Your task to perform on an android device: open app "NewsBreak: Local News & Alerts" Image 0: 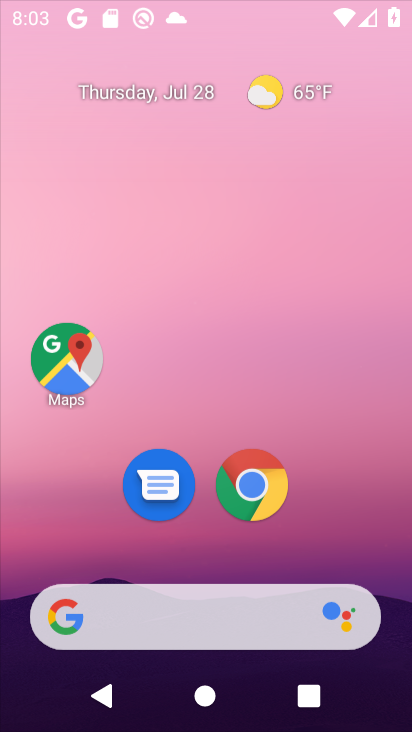
Step 0: click (230, 163)
Your task to perform on an android device: open app "NewsBreak: Local News & Alerts" Image 1: 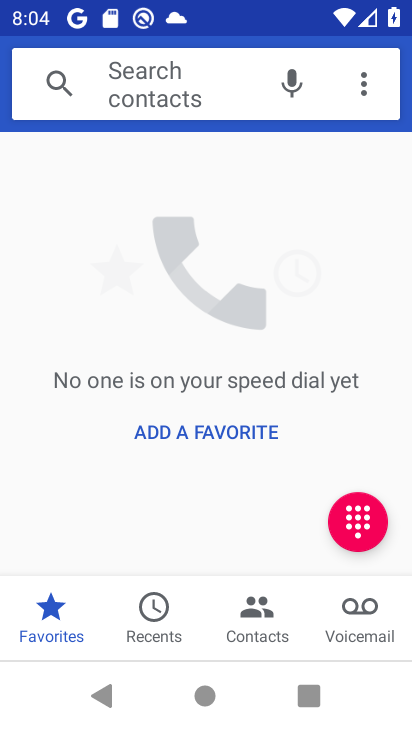
Step 1: press back button
Your task to perform on an android device: open app "NewsBreak: Local News & Alerts" Image 2: 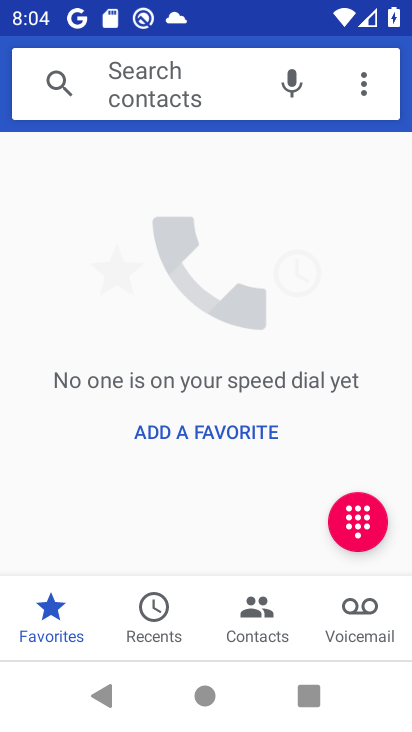
Step 2: press back button
Your task to perform on an android device: open app "NewsBreak: Local News & Alerts" Image 3: 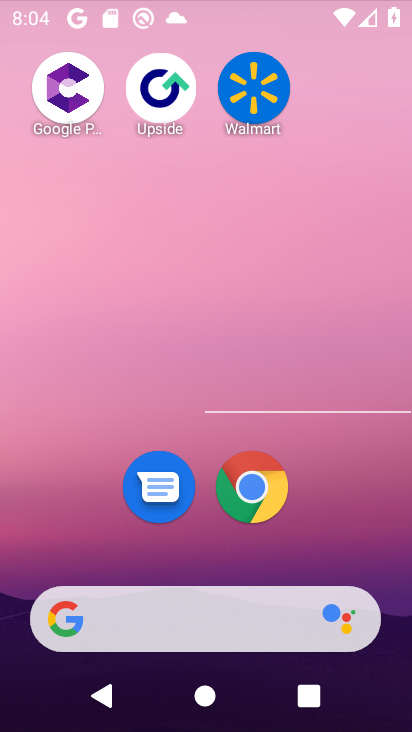
Step 3: press back button
Your task to perform on an android device: open app "NewsBreak: Local News & Alerts" Image 4: 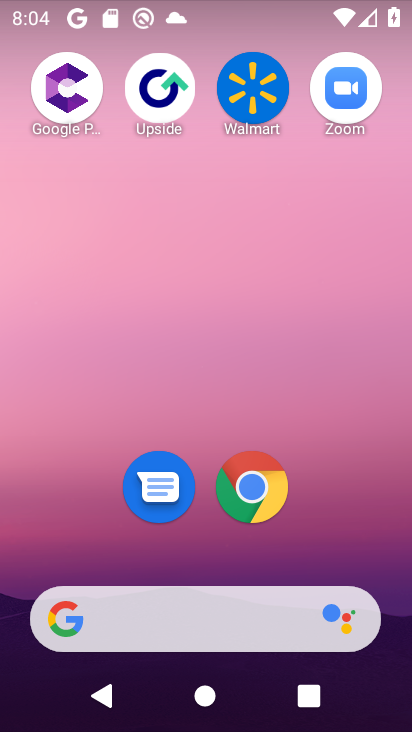
Step 4: press back button
Your task to perform on an android device: open app "NewsBreak: Local News & Alerts" Image 5: 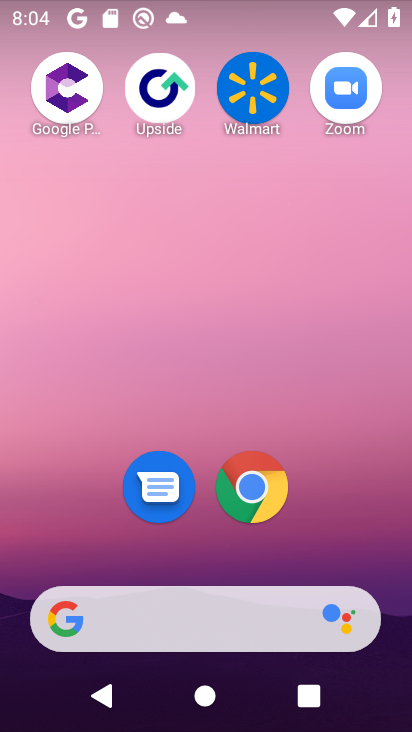
Step 5: drag from (249, 682) to (175, 140)
Your task to perform on an android device: open app "NewsBreak: Local News & Alerts" Image 6: 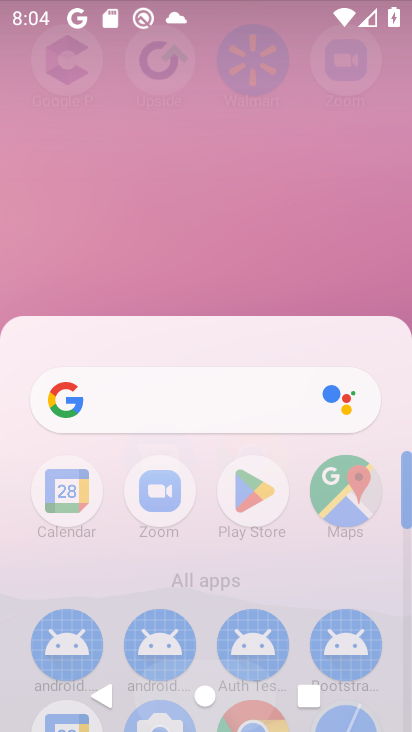
Step 6: drag from (299, 605) to (274, 80)
Your task to perform on an android device: open app "NewsBreak: Local News & Alerts" Image 7: 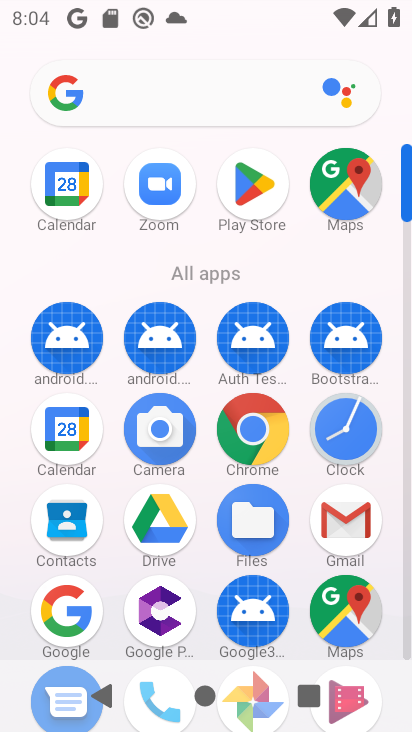
Step 7: drag from (273, 486) to (250, 32)
Your task to perform on an android device: open app "NewsBreak: Local News & Alerts" Image 8: 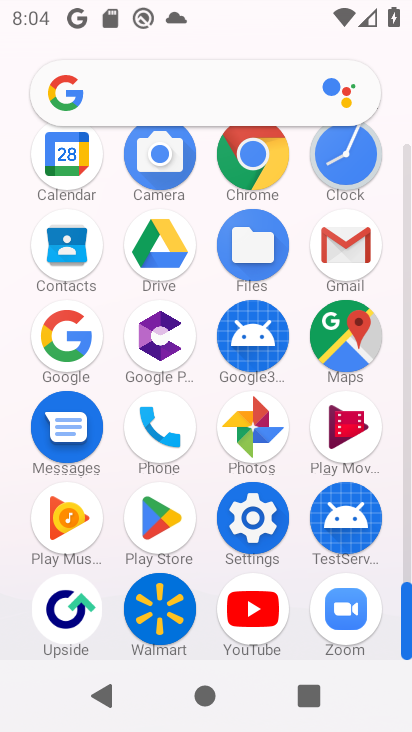
Step 8: drag from (193, 189) to (213, 545)
Your task to perform on an android device: open app "NewsBreak: Local News & Alerts" Image 9: 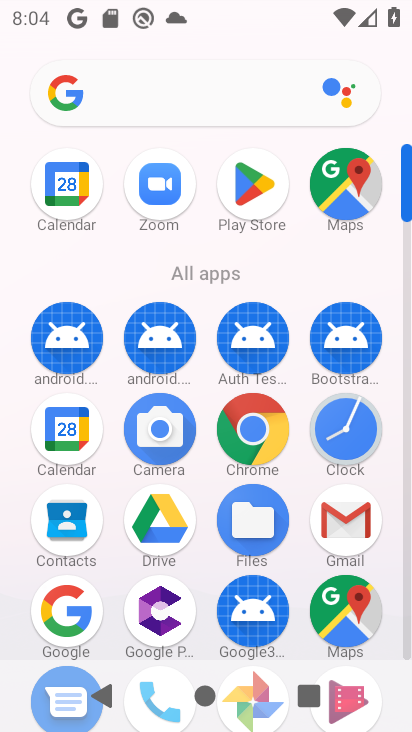
Step 9: drag from (170, 334) to (216, 656)
Your task to perform on an android device: open app "NewsBreak: Local News & Alerts" Image 10: 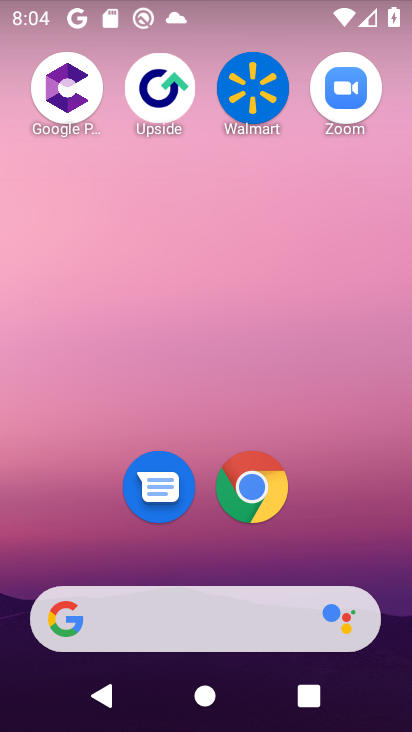
Step 10: drag from (226, 678) to (219, 147)
Your task to perform on an android device: open app "NewsBreak: Local News & Alerts" Image 11: 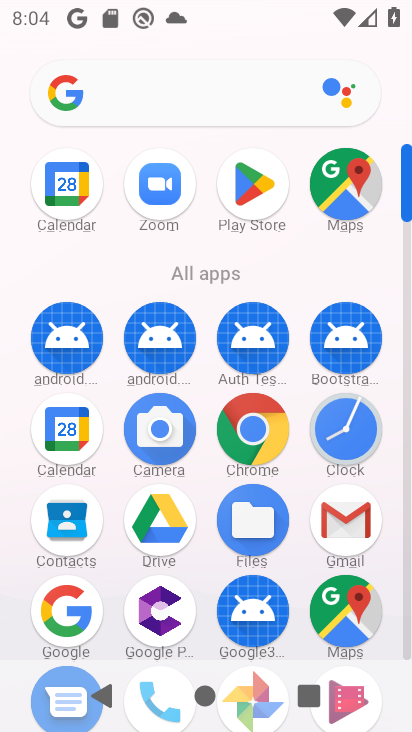
Step 11: click (250, 189)
Your task to perform on an android device: open app "NewsBreak: Local News & Alerts" Image 12: 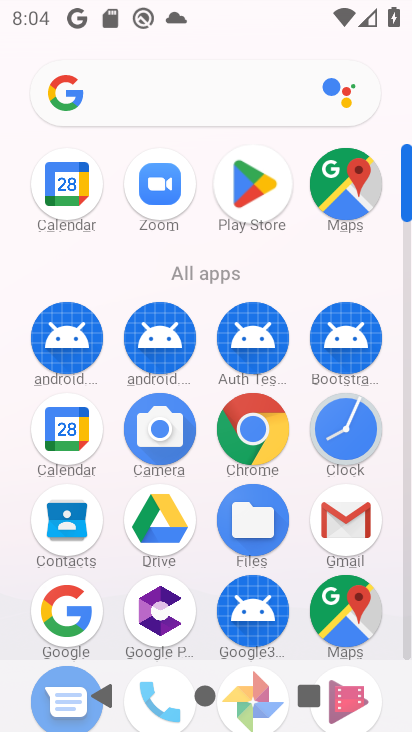
Step 12: click (248, 191)
Your task to perform on an android device: open app "NewsBreak: Local News & Alerts" Image 13: 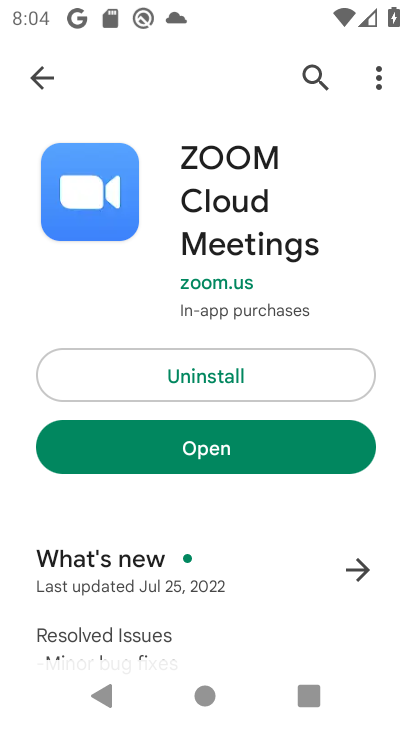
Step 13: click (32, 68)
Your task to perform on an android device: open app "NewsBreak: Local News & Alerts" Image 14: 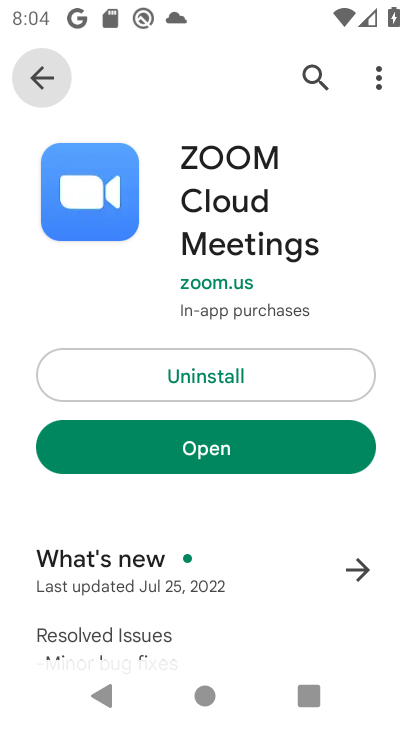
Step 14: click (37, 71)
Your task to perform on an android device: open app "NewsBreak: Local News & Alerts" Image 15: 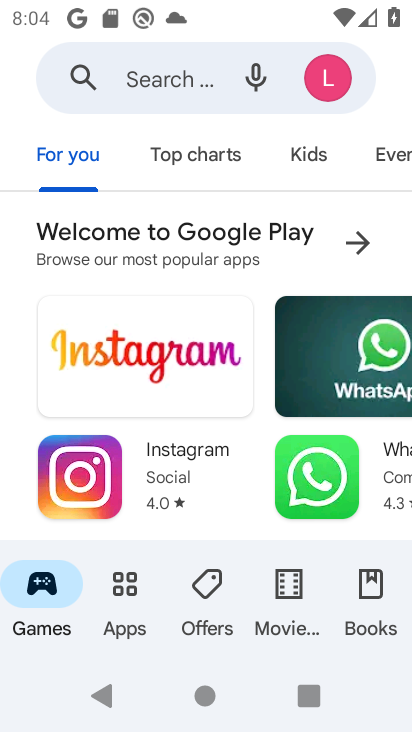
Step 15: click (141, 77)
Your task to perform on an android device: open app "NewsBreak: Local News & Alerts" Image 16: 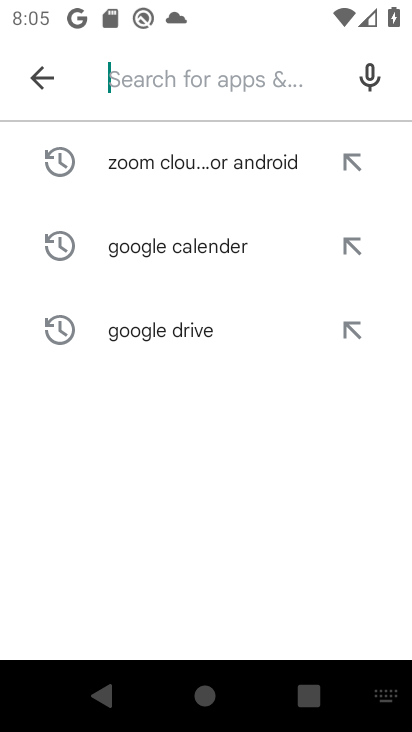
Step 16: type "News break : Local News & Alerts"
Your task to perform on an android device: open app "NewsBreak: Local News & Alerts" Image 17: 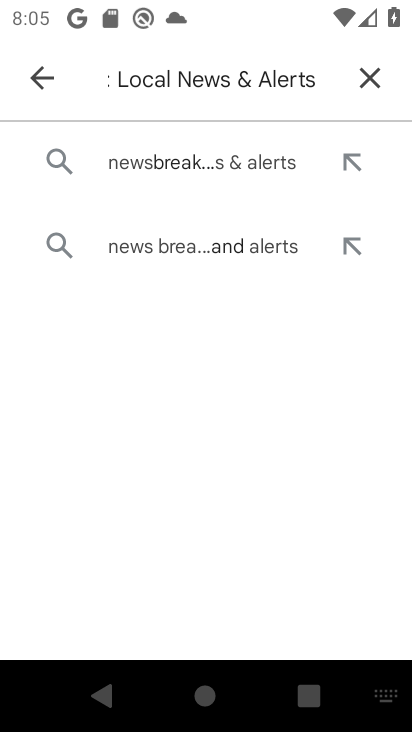
Step 17: click (347, 154)
Your task to perform on an android device: open app "NewsBreak: Local News & Alerts" Image 18: 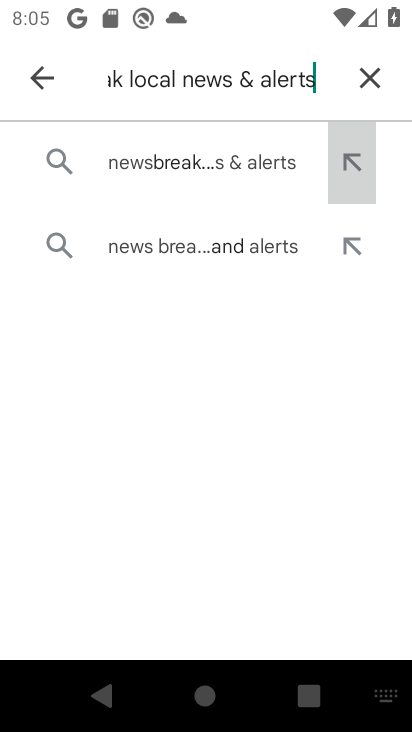
Step 18: click (349, 151)
Your task to perform on an android device: open app "NewsBreak: Local News & Alerts" Image 19: 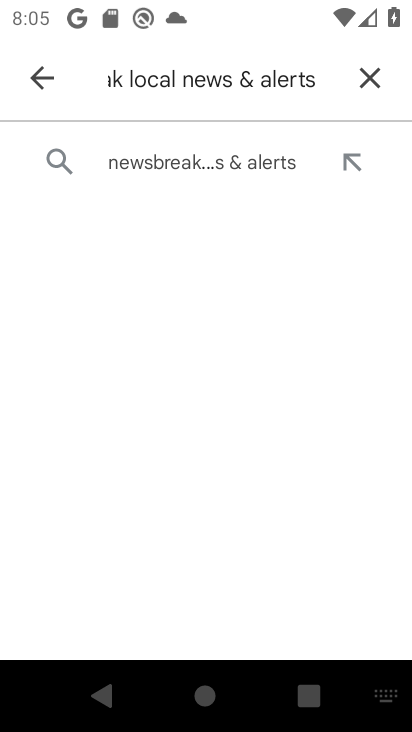
Step 19: click (351, 167)
Your task to perform on an android device: open app "NewsBreak: Local News & Alerts" Image 20: 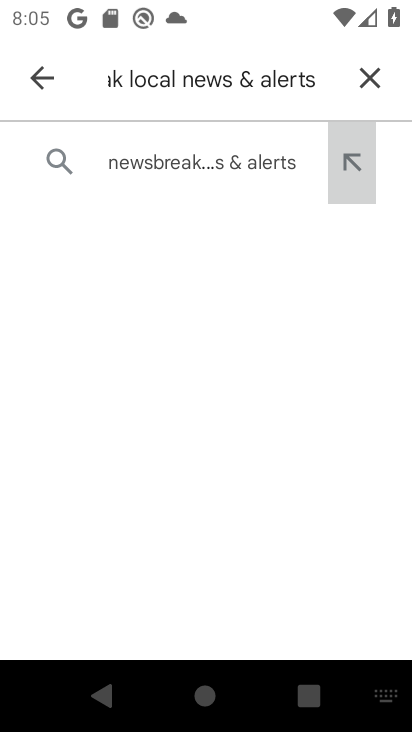
Step 20: click (349, 167)
Your task to perform on an android device: open app "NewsBreak: Local News & Alerts" Image 21: 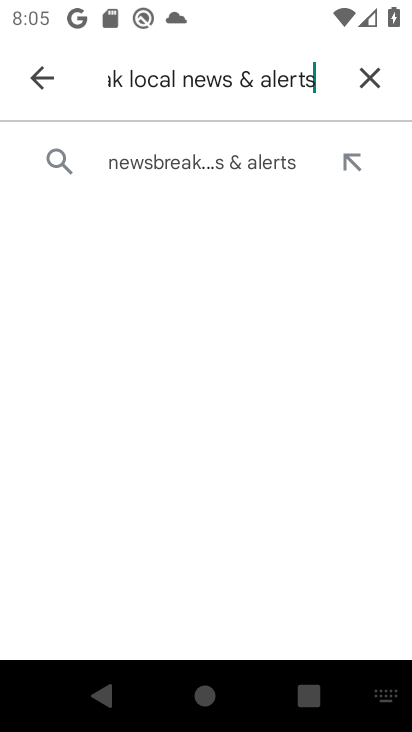
Step 21: click (254, 168)
Your task to perform on an android device: open app "NewsBreak: Local News & Alerts" Image 22: 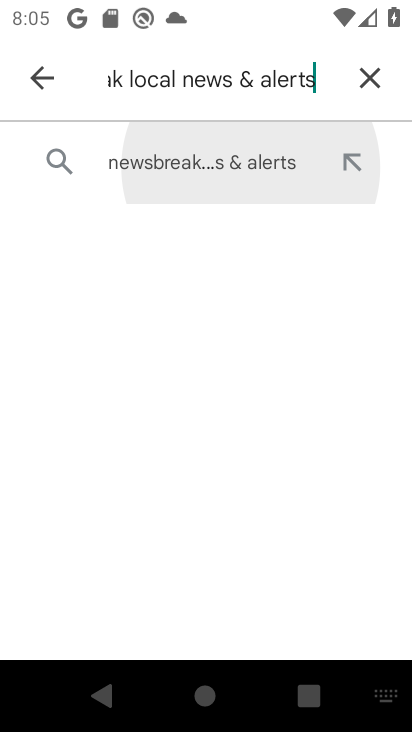
Step 22: click (254, 168)
Your task to perform on an android device: open app "NewsBreak: Local News & Alerts" Image 23: 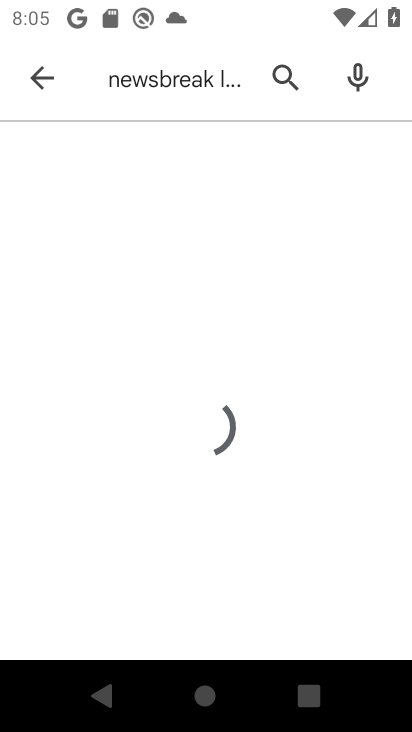
Step 23: click (253, 168)
Your task to perform on an android device: open app "NewsBreak: Local News & Alerts" Image 24: 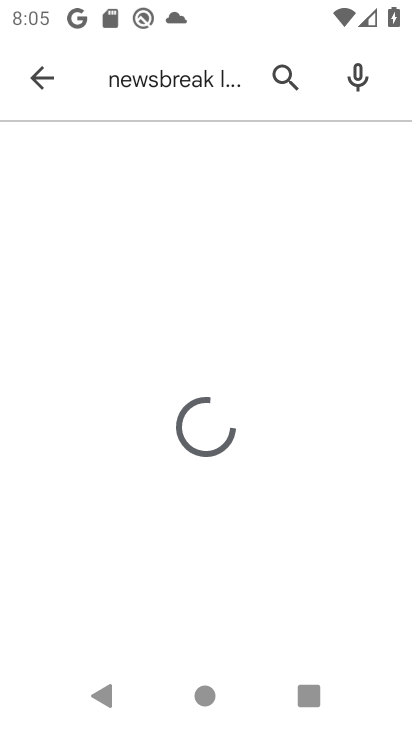
Step 24: click (254, 168)
Your task to perform on an android device: open app "NewsBreak: Local News & Alerts" Image 25: 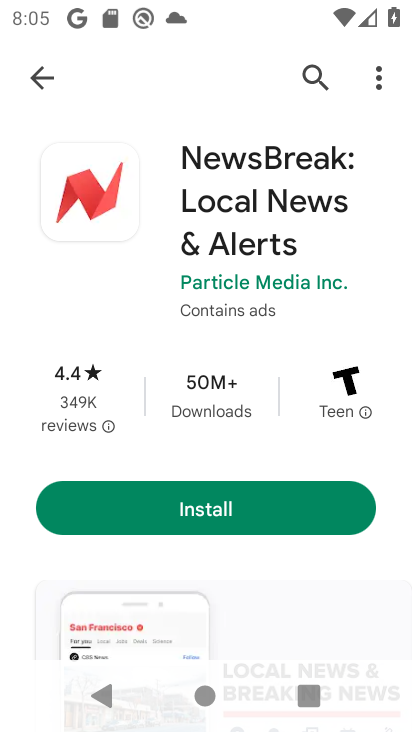
Step 25: click (221, 503)
Your task to perform on an android device: open app "NewsBreak: Local News & Alerts" Image 26: 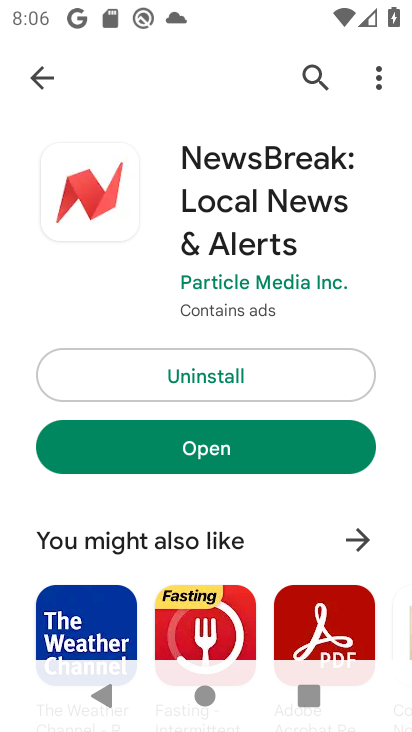
Step 26: click (222, 447)
Your task to perform on an android device: open app "NewsBreak: Local News & Alerts" Image 27: 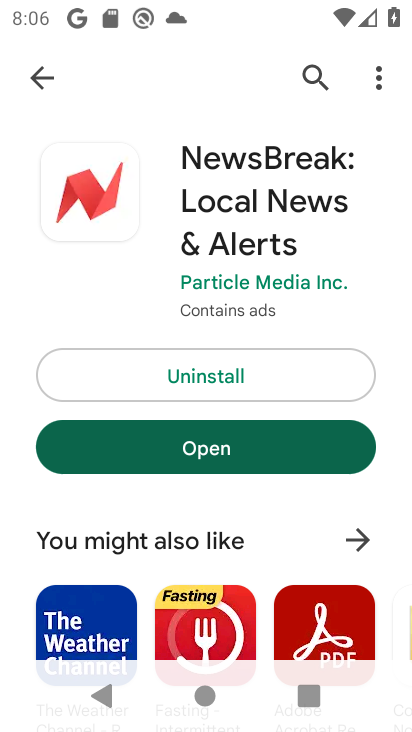
Step 27: click (222, 447)
Your task to perform on an android device: open app "NewsBreak: Local News & Alerts" Image 28: 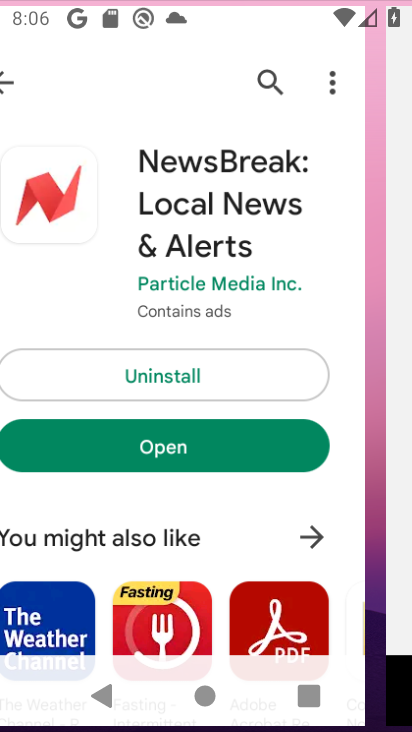
Step 28: click (228, 451)
Your task to perform on an android device: open app "NewsBreak: Local News & Alerts" Image 29: 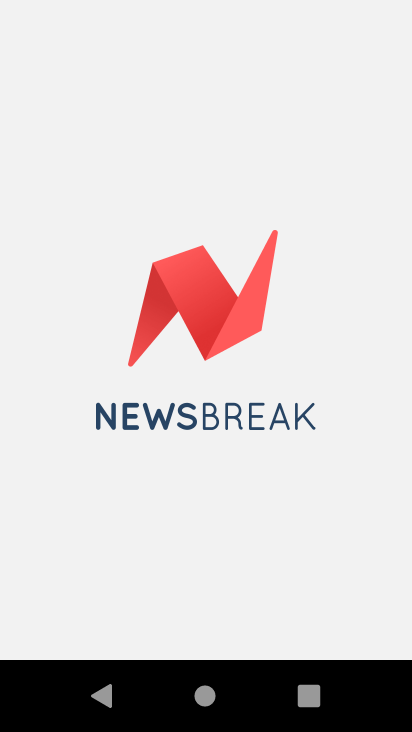
Step 29: task complete